Your task to perform on an android device: Open battery settings Image 0: 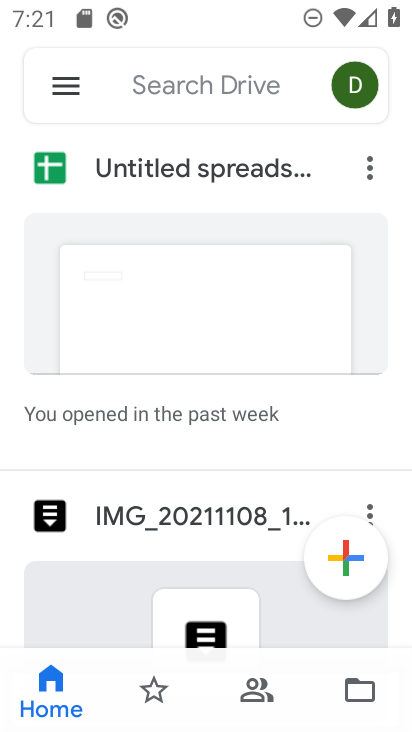
Step 0: press home button
Your task to perform on an android device: Open battery settings Image 1: 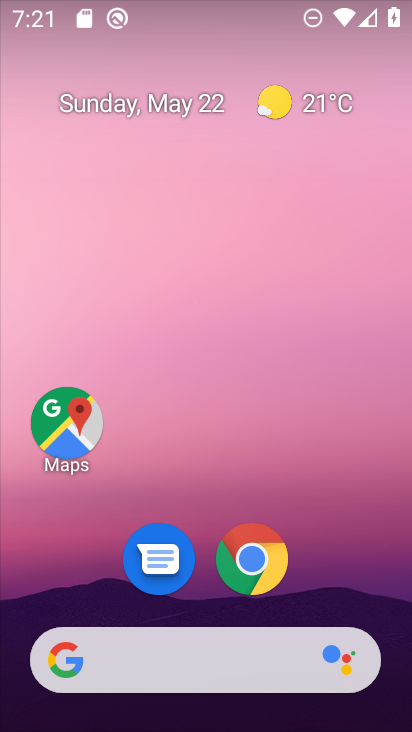
Step 1: drag from (241, 691) to (174, 129)
Your task to perform on an android device: Open battery settings Image 2: 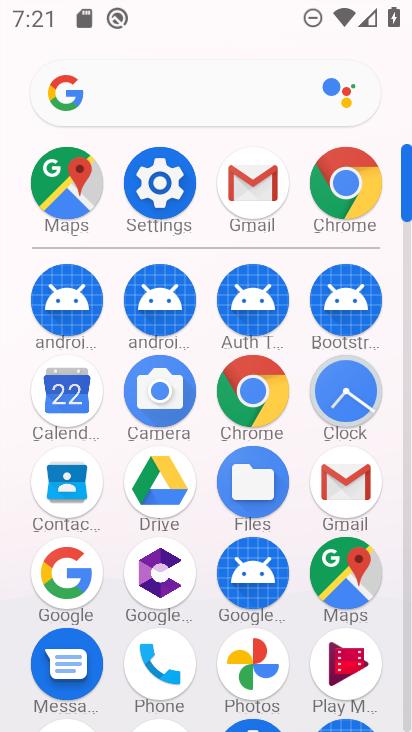
Step 2: click (138, 190)
Your task to perform on an android device: Open battery settings Image 3: 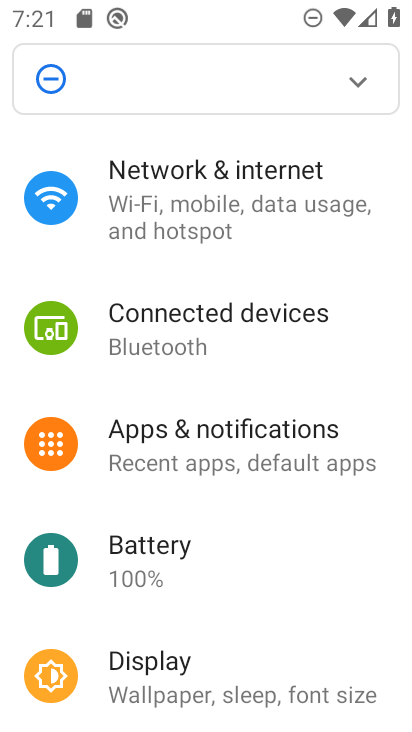
Step 3: click (177, 554)
Your task to perform on an android device: Open battery settings Image 4: 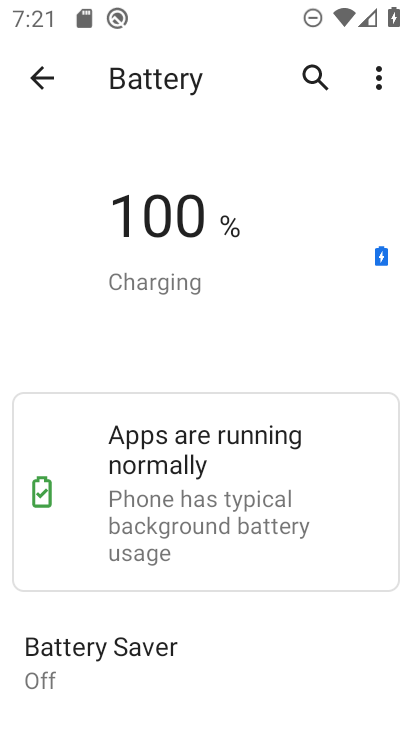
Step 4: task complete